Your task to perform on an android device: Search for the best coffee tables on Crate & Barrel Image 0: 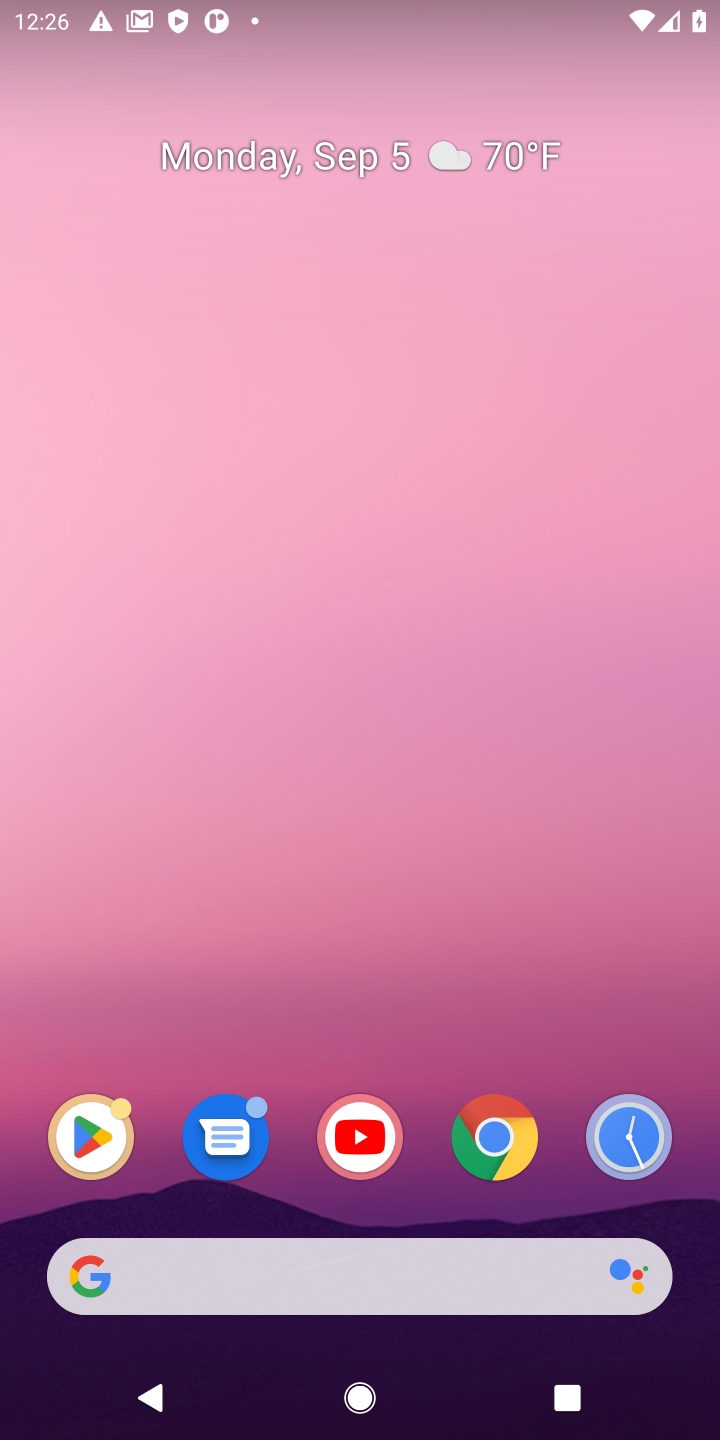
Step 0: click (514, 1132)
Your task to perform on an android device: Search for the best coffee tables on Crate & Barrel Image 1: 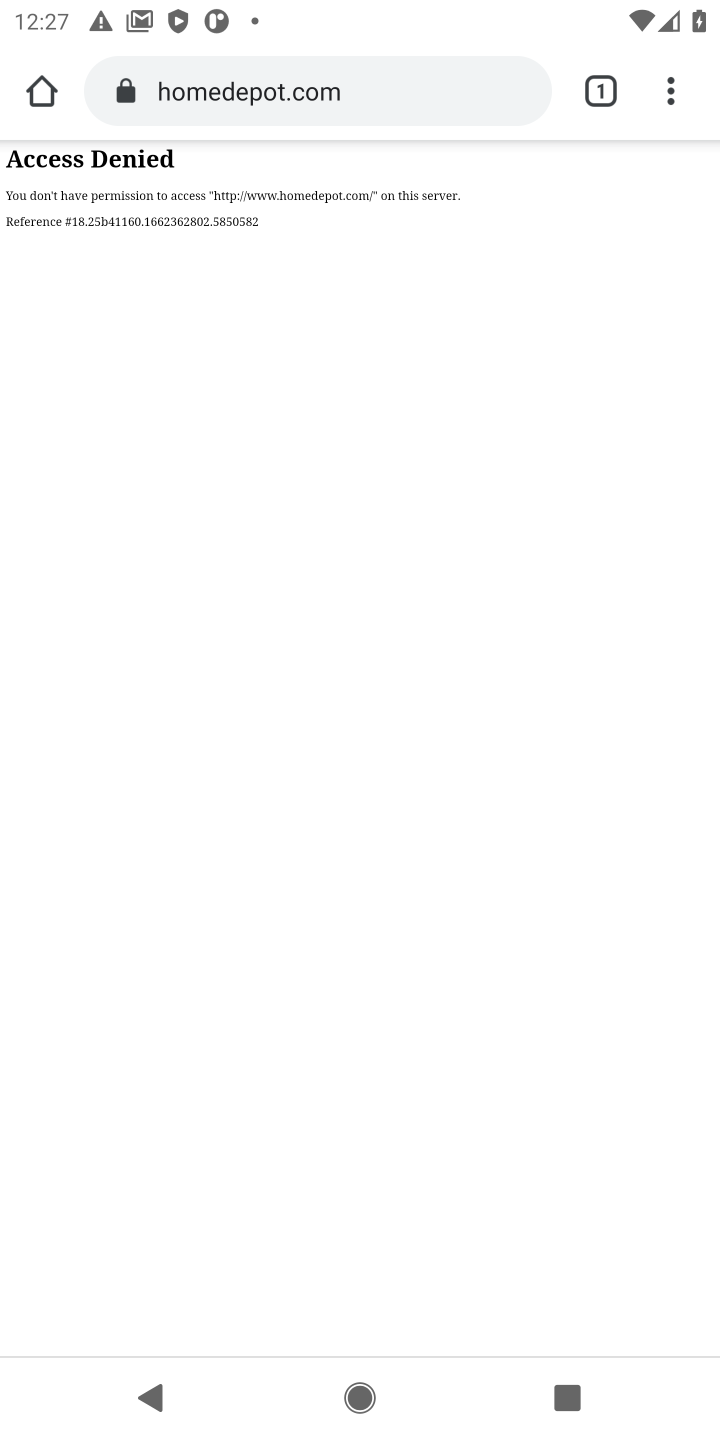
Step 1: click (345, 90)
Your task to perform on an android device: Search for the best coffee tables on Crate & Barrel Image 2: 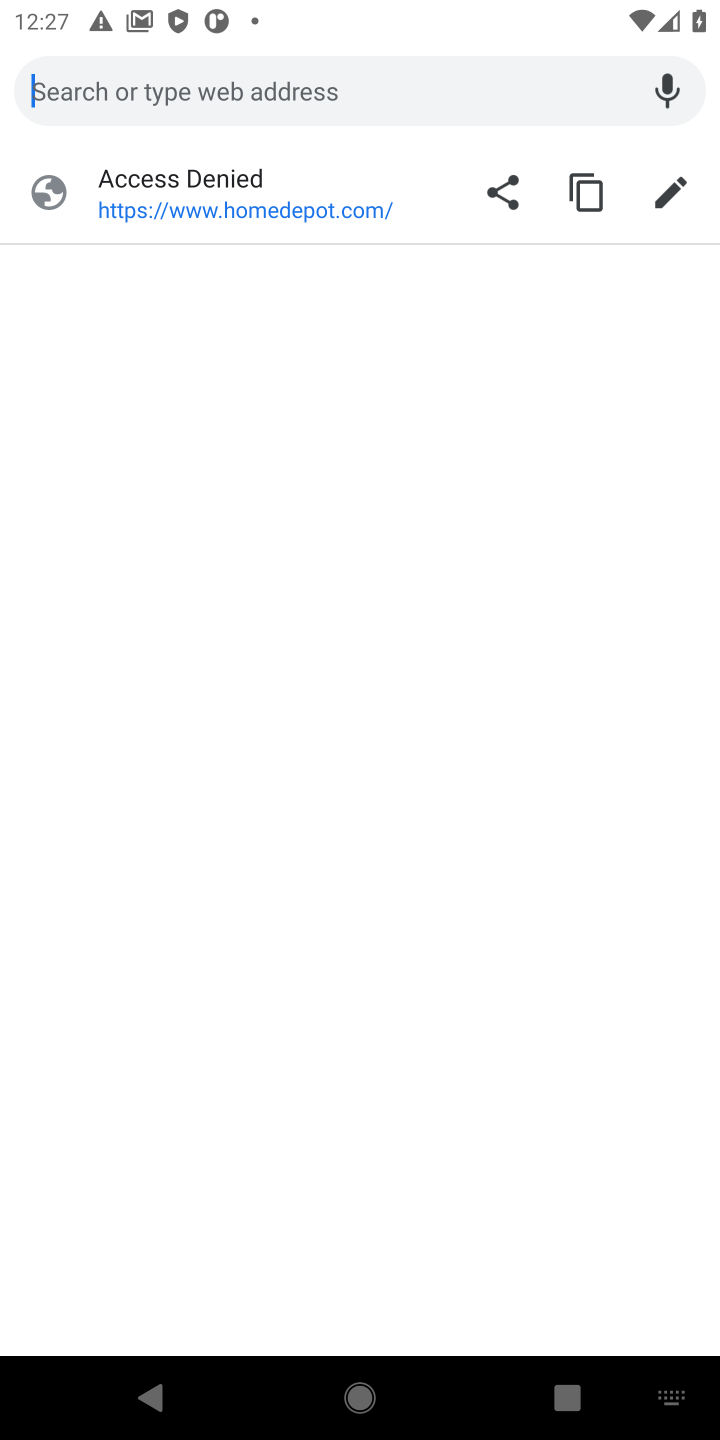
Step 2: type "crate and barrel"
Your task to perform on an android device: Search for the best coffee tables on Crate & Barrel Image 3: 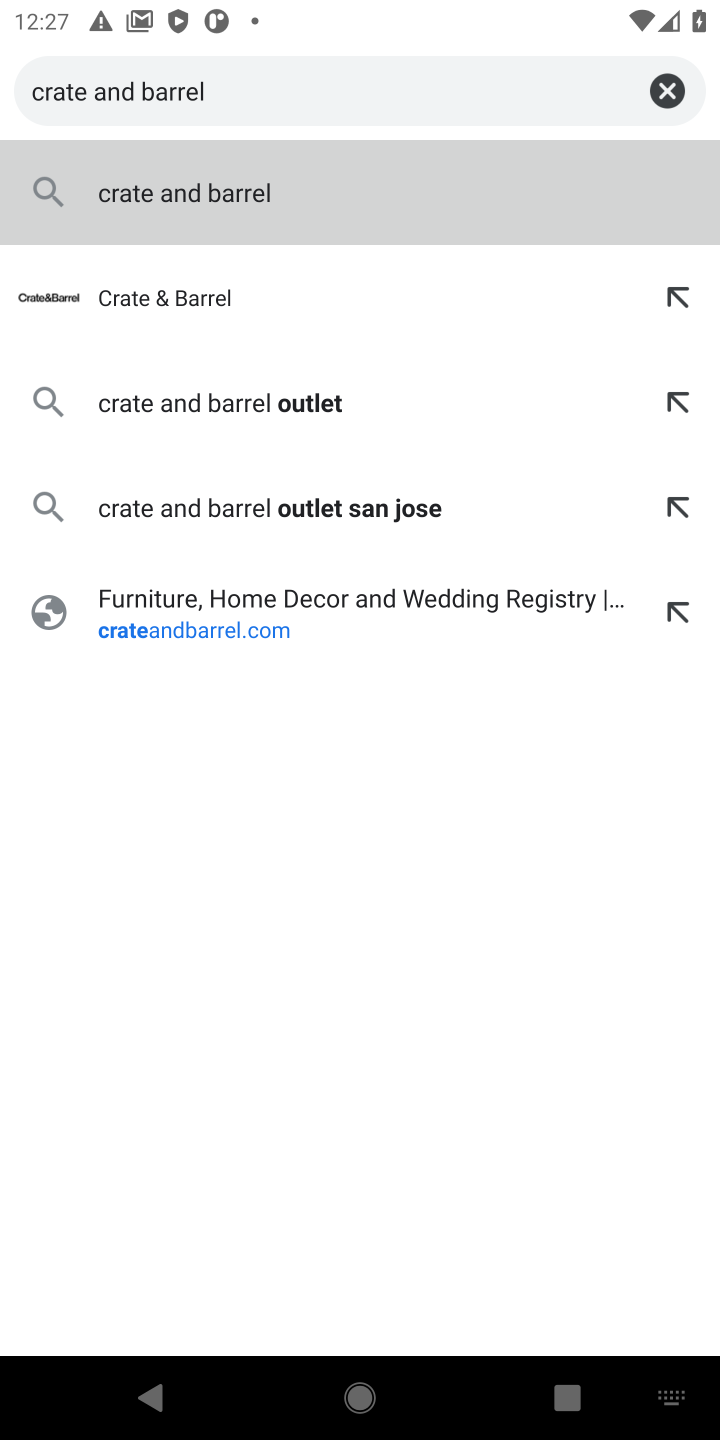
Step 3: click (335, 620)
Your task to perform on an android device: Search for the best coffee tables on Crate & Barrel Image 4: 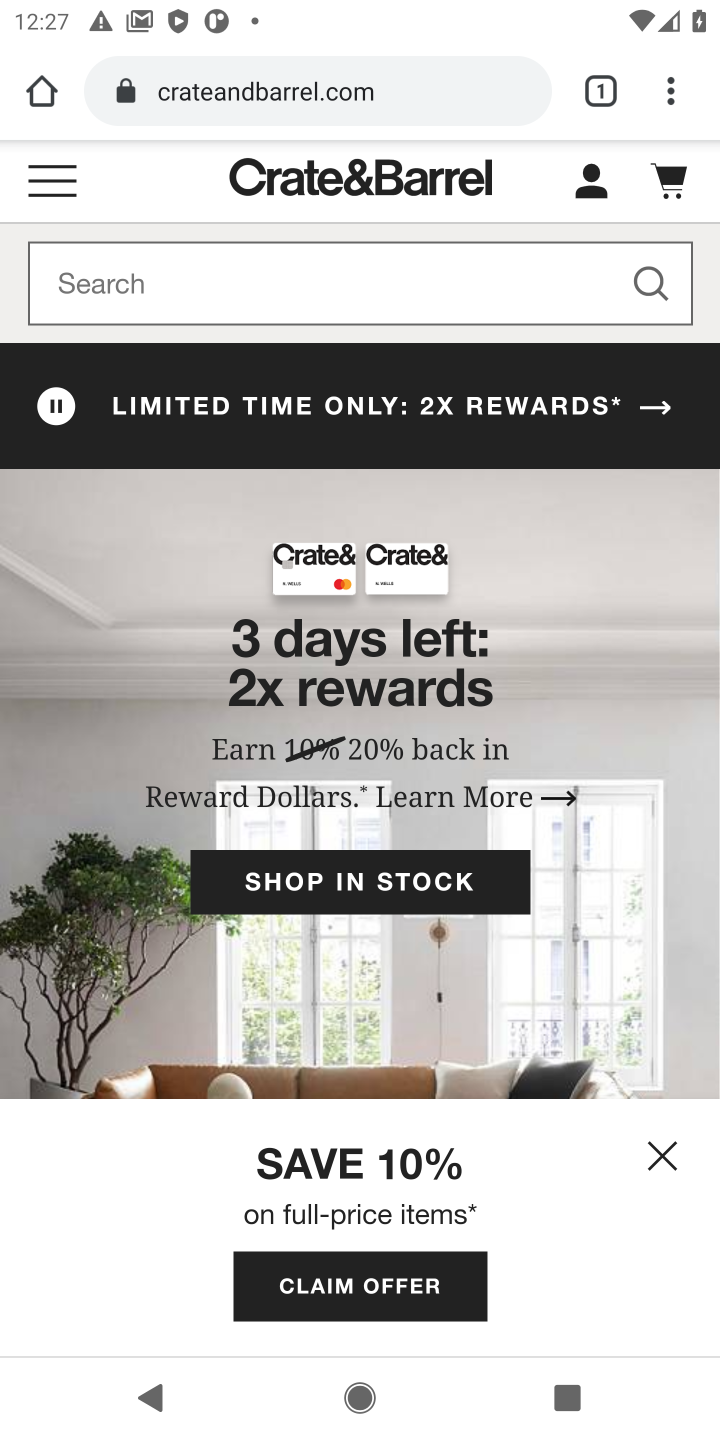
Step 4: click (401, 291)
Your task to perform on an android device: Search for the best coffee tables on Crate & Barrel Image 5: 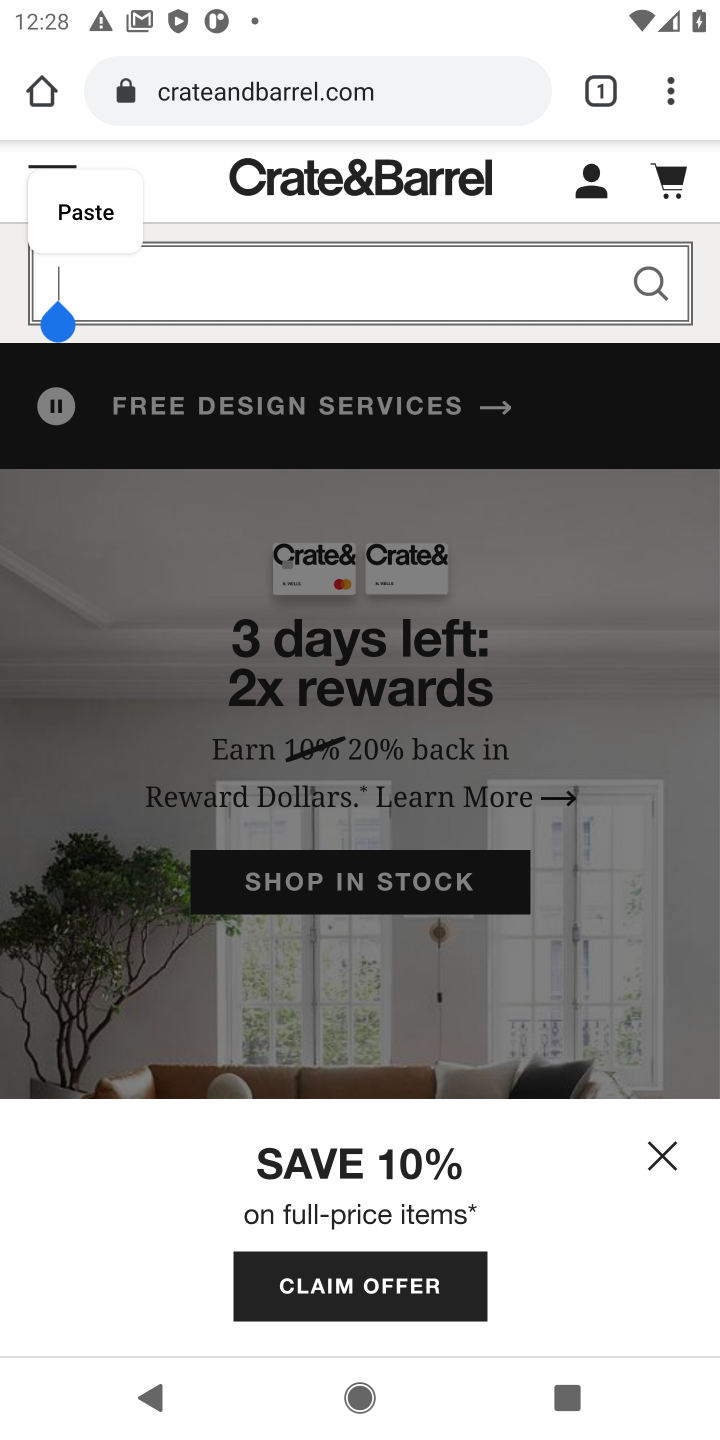
Step 5: type "best coffee table"
Your task to perform on an android device: Search for the best coffee tables on Crate & Barrel Image 6: 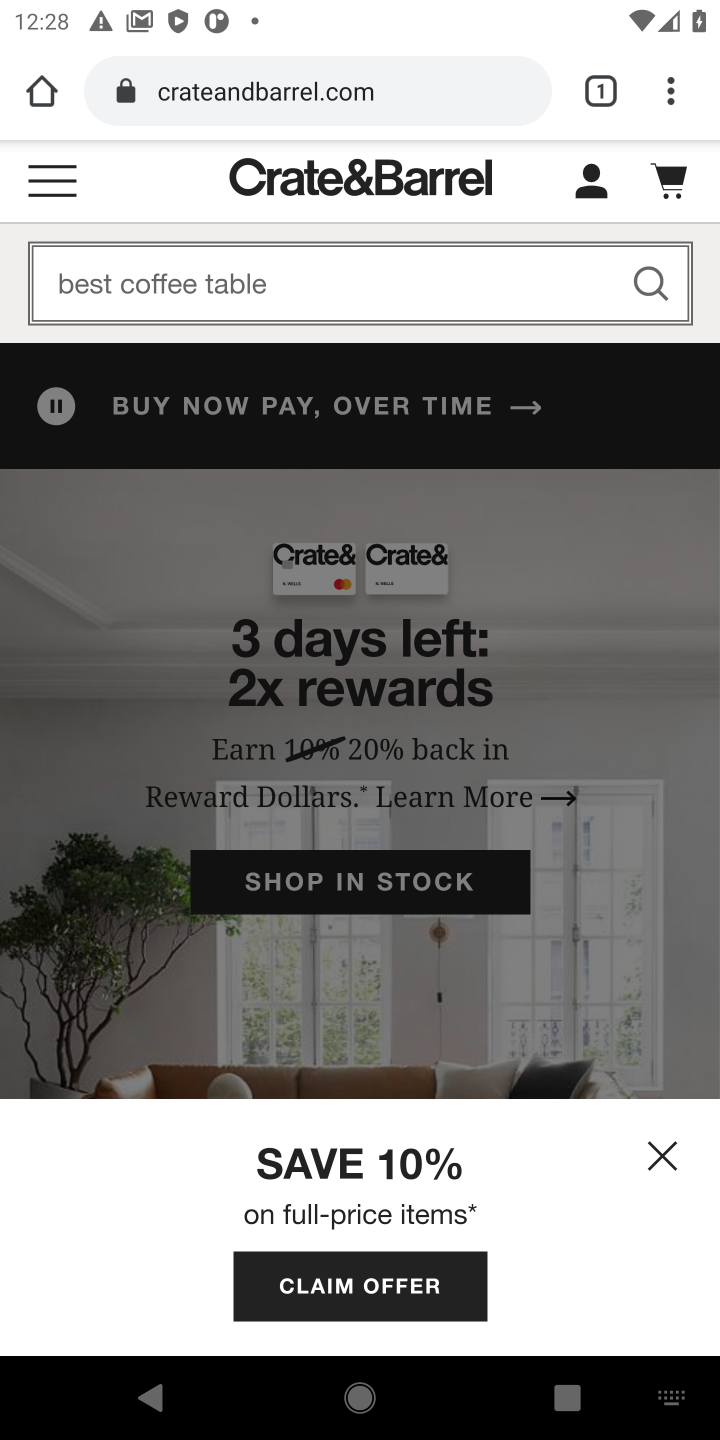
Step 6: press enter
Your task to perform on an android device: Search for the best coffee tables on Crate & Barrel Image 7: 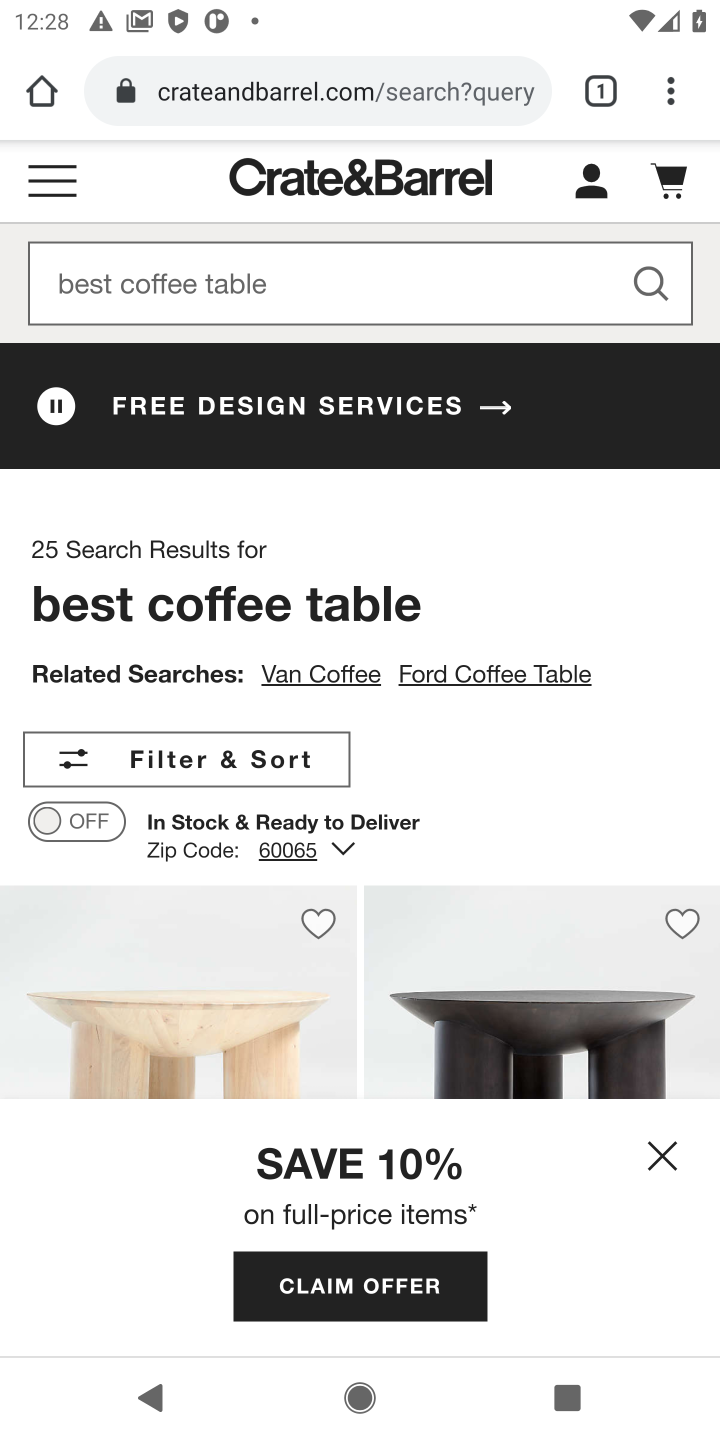
Step 7: task complete